Your task to perform on an android device: open device folders in google photos Image 0: 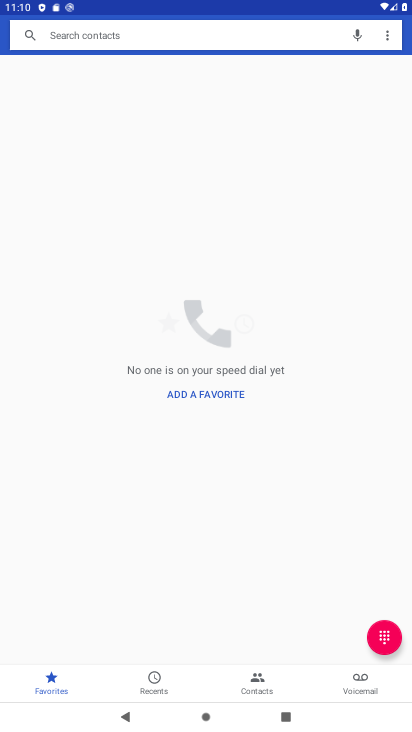
Step 0: press home button
Your task to perform on an android device: open device folders in google photos Image 1: 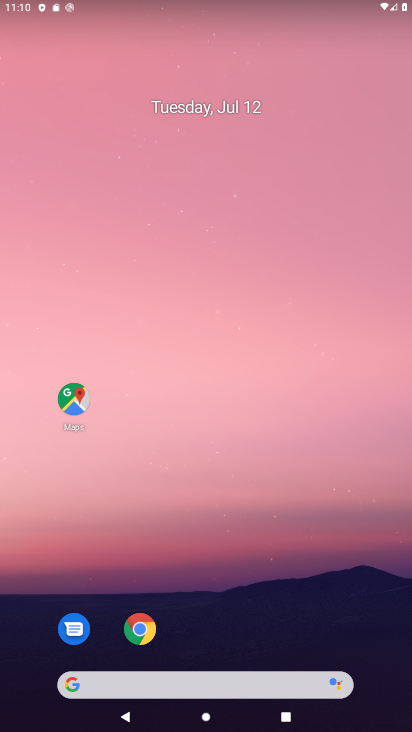
Step 1: drag from (233, 602) to (179, 189)
Your task to perform on an android device: open device folders in google photos Image 2: 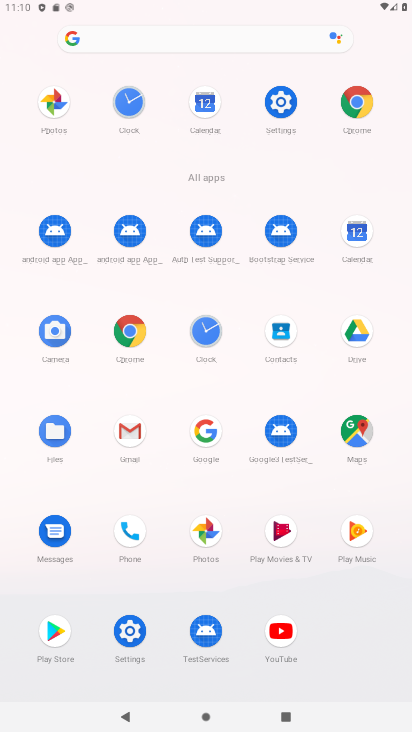
Step 2: click (204, 529)
Your task to perform on an android device: open device folders in google photos Image 3: 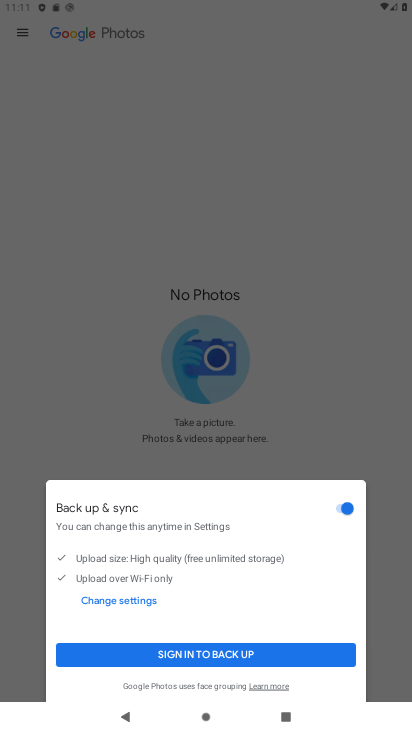
Step 3: click (50, 408)
Your task to perform on an android device: open device folders in google photos Image 4: 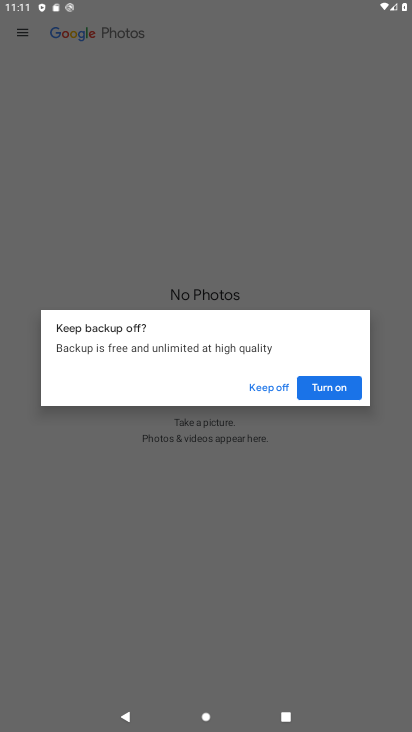
Step 4: click (260, 386)
Your task to perform on an android device: open device folders in google photos Image 5: 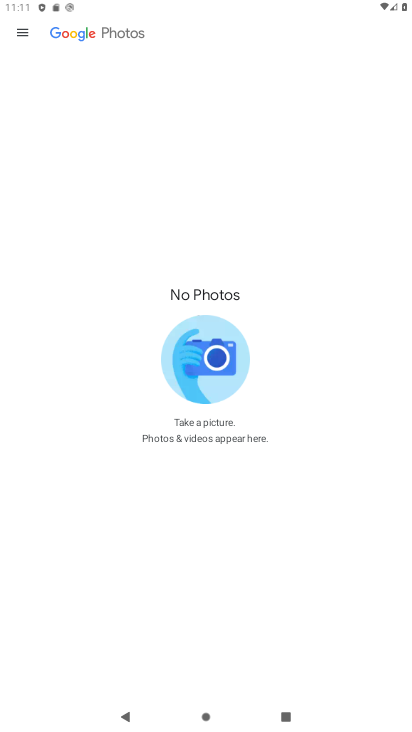
Step 5: click (21, 29)
Your task to perform on an android device: open device folders in google photos Image 6: 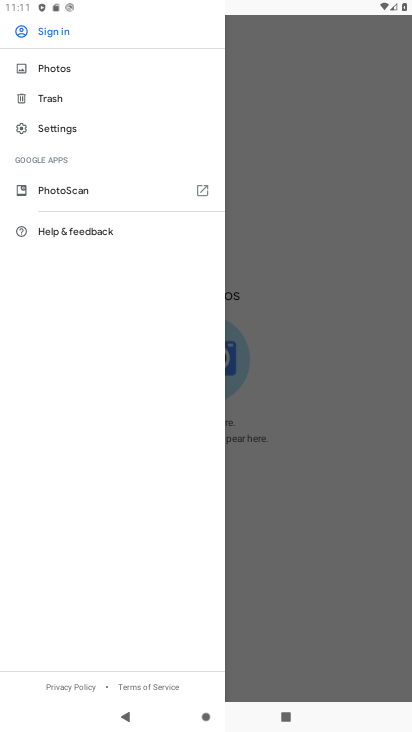
Step 6: click (272, 218)
Your task to perform on an android device: open device folders in google photos Image 7: 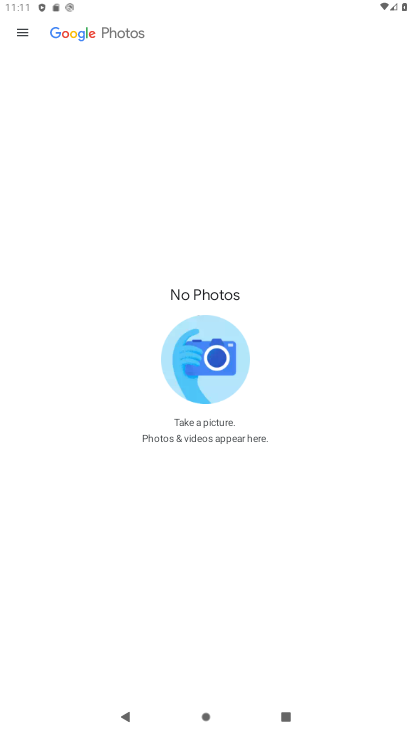
Step 7: task complete